Your task to perform on an android device: turn off picture-in-picture Image 0: 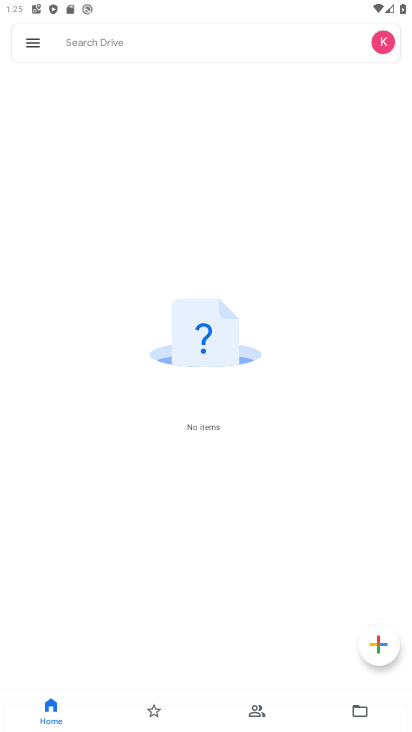
Step 0: press home button
Your task to perform on an android device: turn off picture-in-picture Image 1: 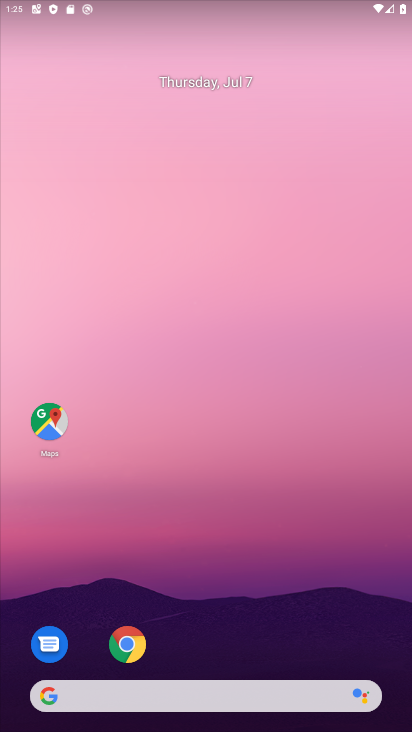
Step 1: click (131, 645)
Your task to perform on an android device: turn off picture-in-picture Image 2: 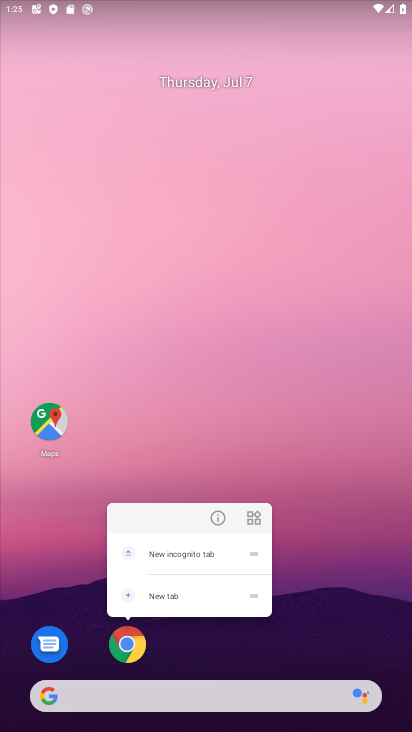
Step 2: click (214, 517)
Your task to perform on an android device: turn off picture-in-picture Image 3: 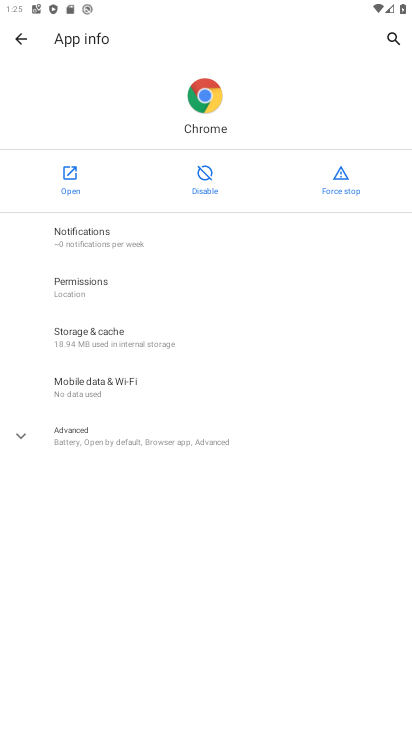
Step 3: click (118, 444)
Your task to perform on an android device: turn off picture-in-picture Image 4: 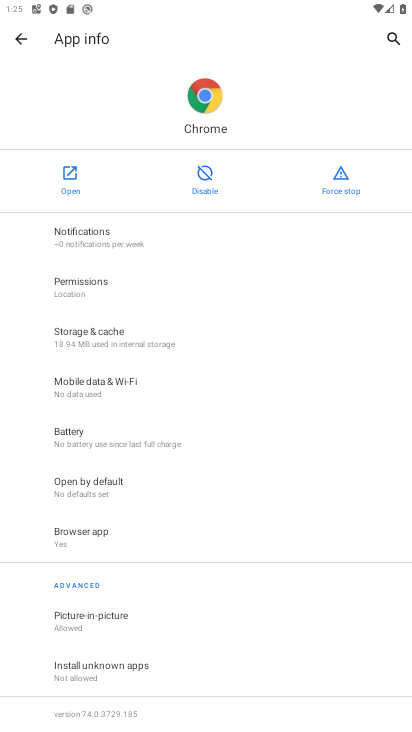
Step 4: click (117, 613)
Your task to perform on an android device: turn off picture-in-picture Image 5: 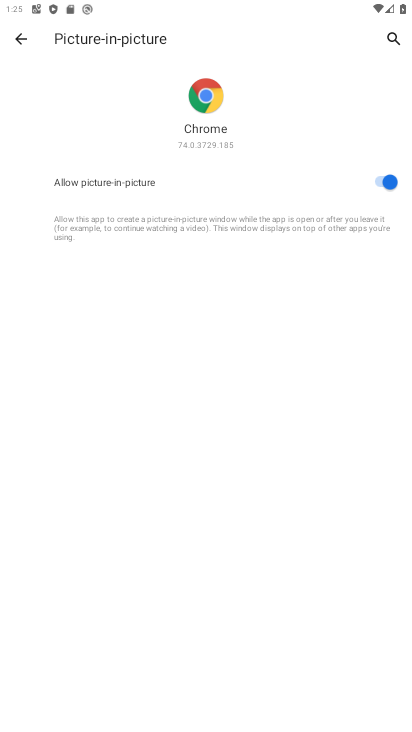
Step 5: click (379, 185)
Your task to perform on an android device: turn off picture-in-picture Image 6: 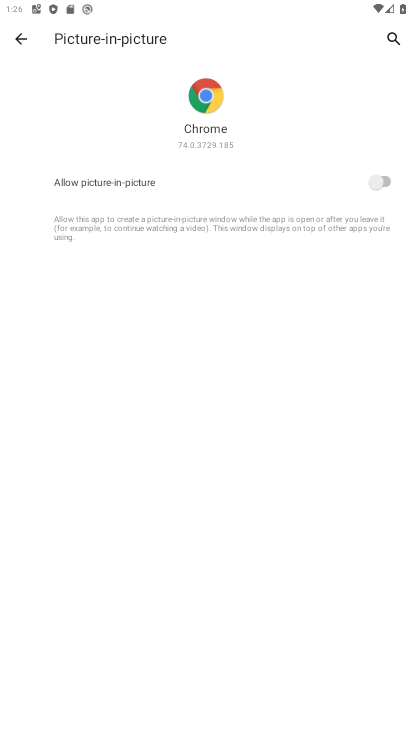
Step 6: task complete